Your task to perform on an android device: Go to Wikipedia Image 0: 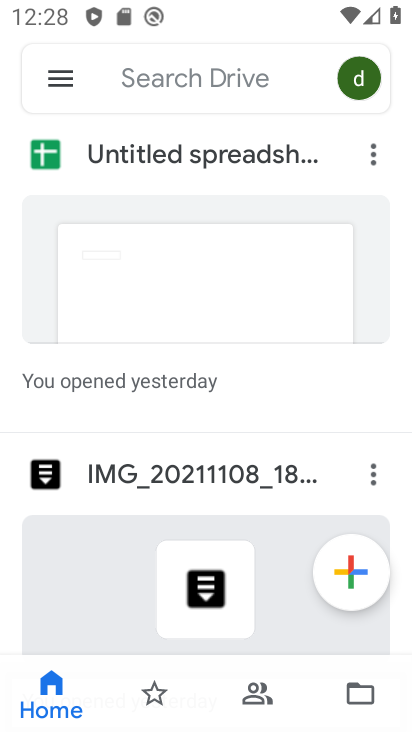
Step 0: press home button
Your task to perform on an android device: Go to Wikipedia Image 1: 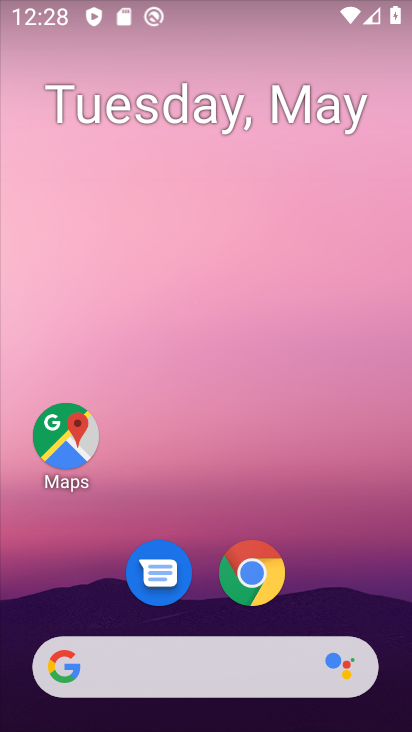
Step 1: click (244, 583)
Your task to perform on an android device: Go to Wikipedia Image 2: 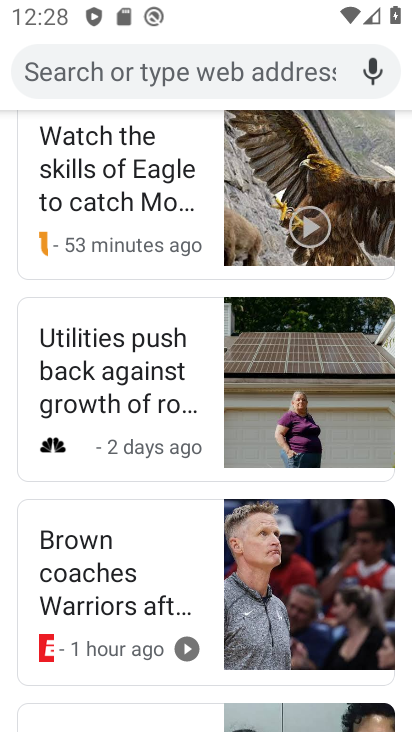
Step 2: drag from (154, 220) to (191, 639)
Your task to perform on an android device: Go to Wikipedia Image 3: 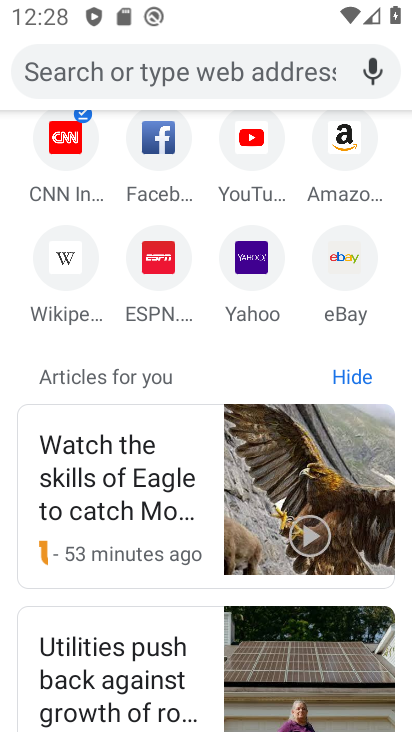
Step 3: drag from (233, 366) to (271, 669)
Your task to perform on an android device: Go to Wikipedia Image 4: 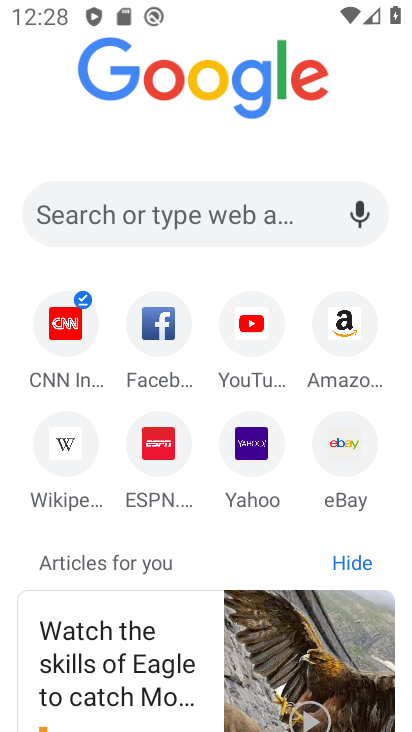
Step 4: click (60, 450)
Your task to perform on an android device: Go to Wikipedia Image 5: 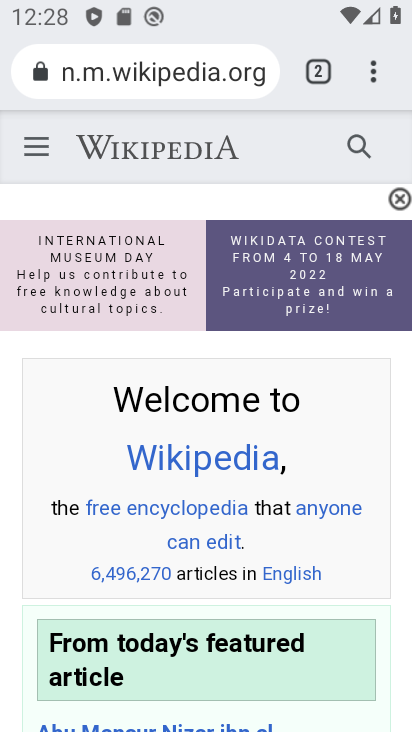
Step 5: task complete